Your task to perform on an android device: Go to Reddit.com Image 0: 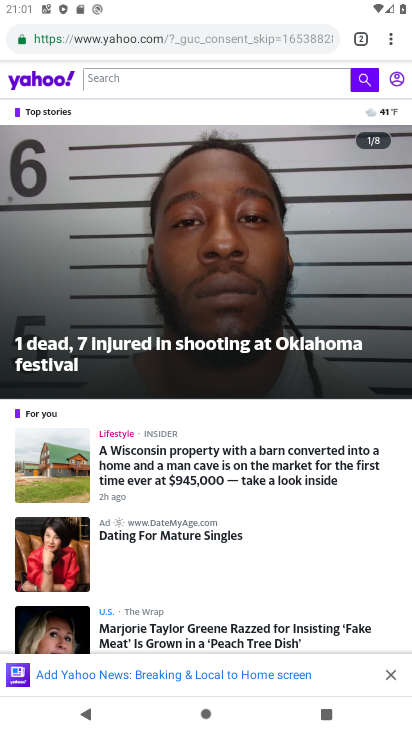
Step 0: press home button
Your task to perform on an android device: Go to Reddit.com Image 1: 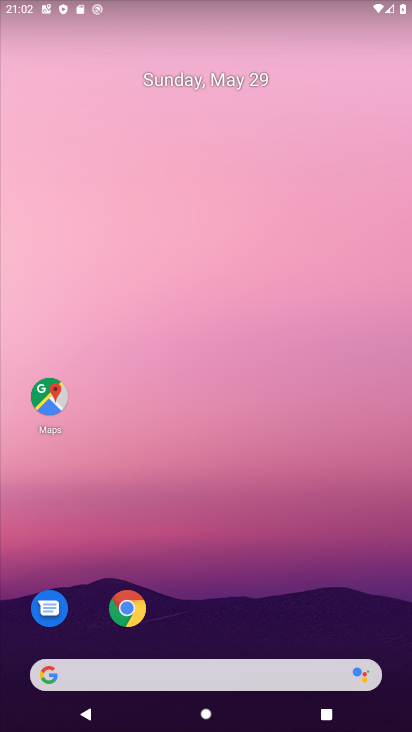
Step 1: drag from (312, 615) to (326, 269)
Your task to perform on an android device: Go to Reddit.com Image 2: 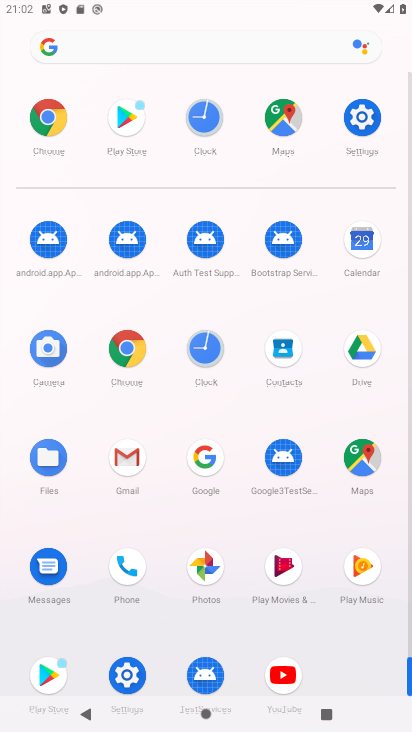
Step 2: click (136, 352)
Your task to perform on an android device: Go to Reddit.com Image 3: 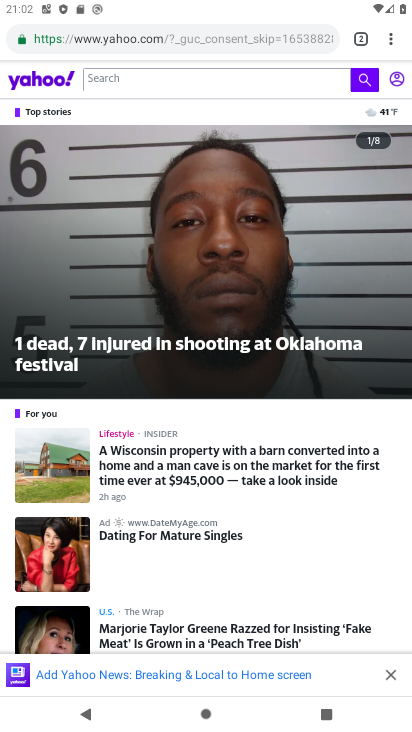
Step 3: click (240, 37)
Your task to perform on an android device: Go to Reddit.com Image 4: 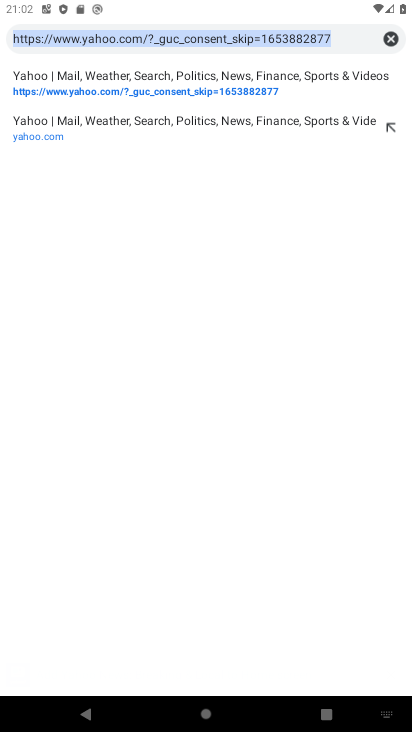
Step 4: click (390, 39)
Your task to perform on an android device: Go to Reddit.com Image 5: 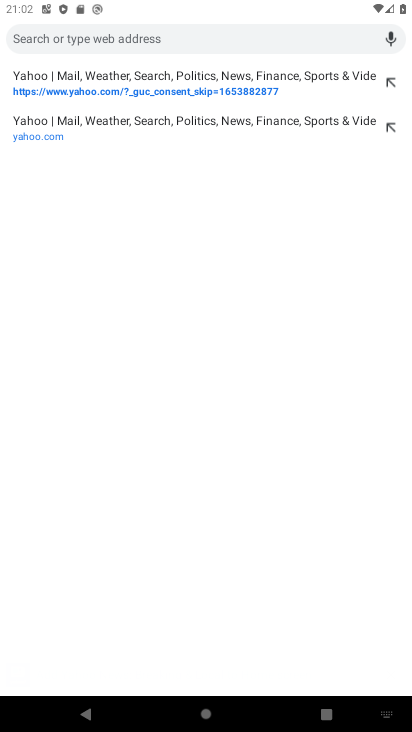
Step 5: type "reddit.com"
Your task to perform on an android device: Go to Reddit.com Image 6: 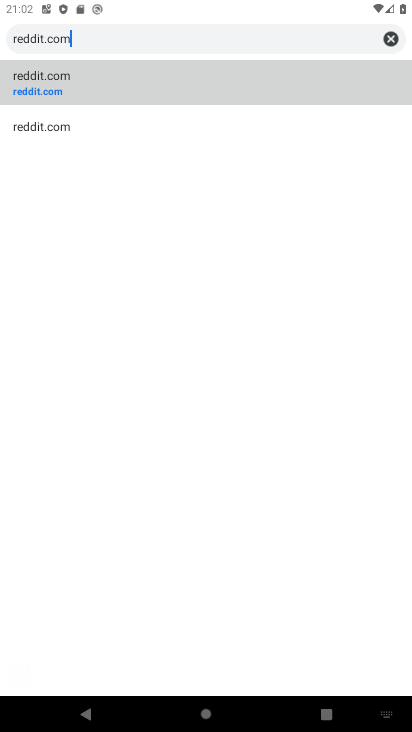
Step 6: click (153, 81)
Your task to perform on an android device: Go to Reddit.com Image 7: 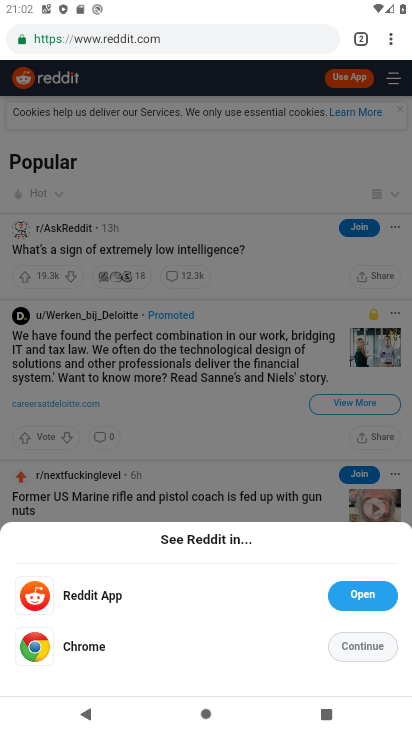
Step 7: task complete